Your task to perform on an android device: see sites visited before in the chrome app Image 0: 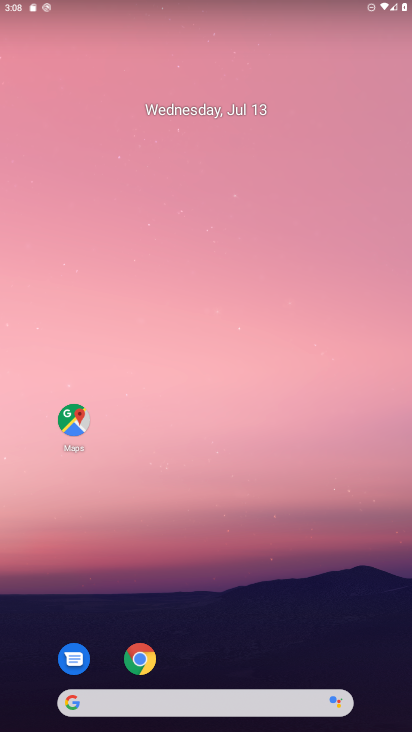
Step 0: click (139, 660)
Your task to perform on an android device: see sites visited before in the chrome app Image 1: 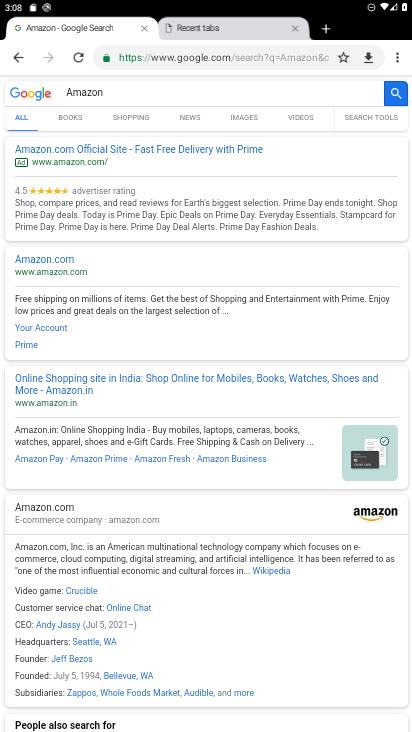
Step 1: click (396, 58)
Your task to perform on an android device: see sites visited before in the chrome app Image 2: 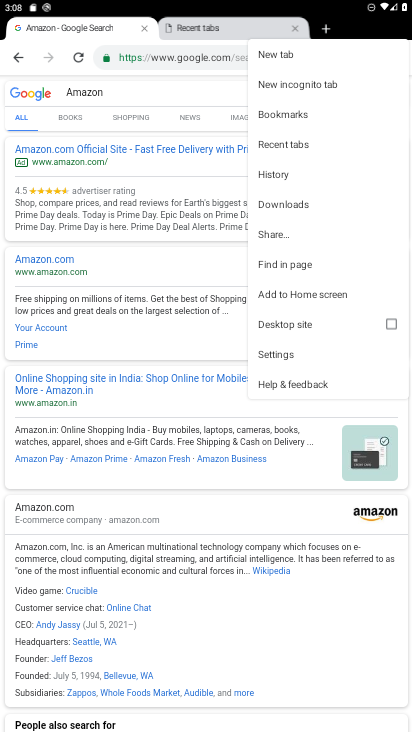
Step 2: click (266, 175)
Your task to perform on an android device: see sites visited before in the chrome app Image 3: 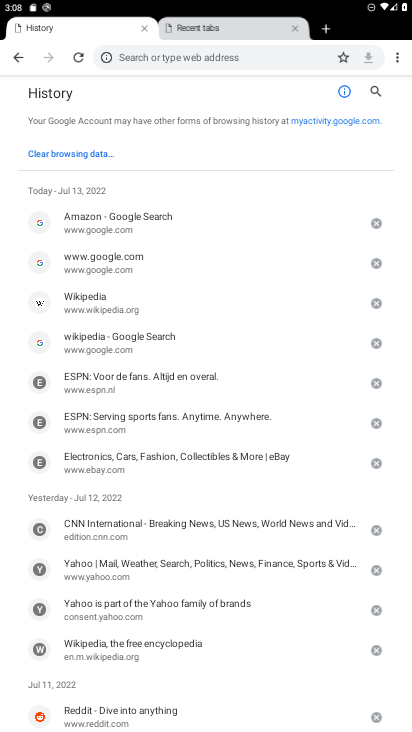
Step 3: task complete